Your task to perform on an android device: Go to accessibility settings Image 0: 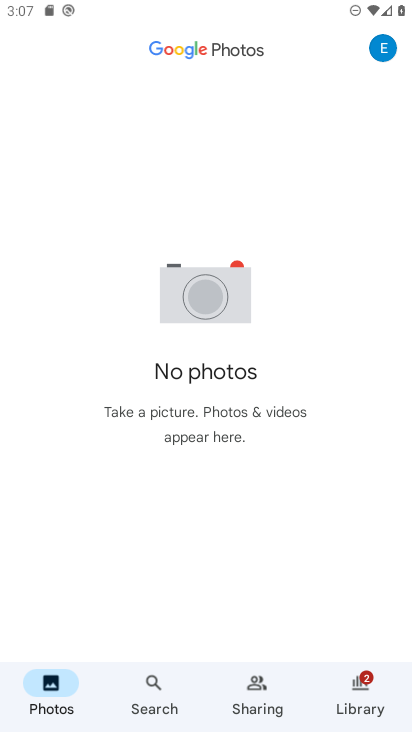
Step 0: press home button
Your task to perform on an android device: Go to accessibility settings Image 1: 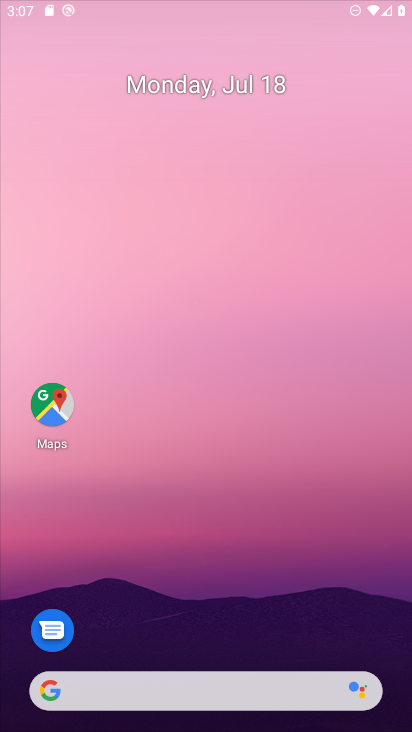
Step 1: drag from (253, 676) to (314, 49)
Your task to perform on an android device: Go to accessibility settings Image 2: 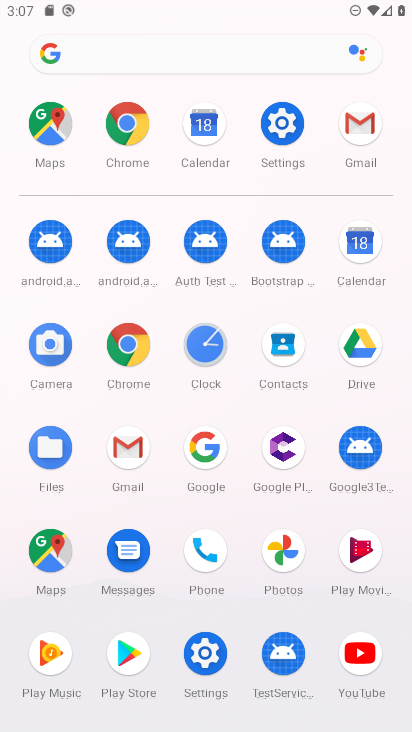
Step 2: click (289, 118)
Your task to perform on an android device: Go to accessibility settings Image 3: 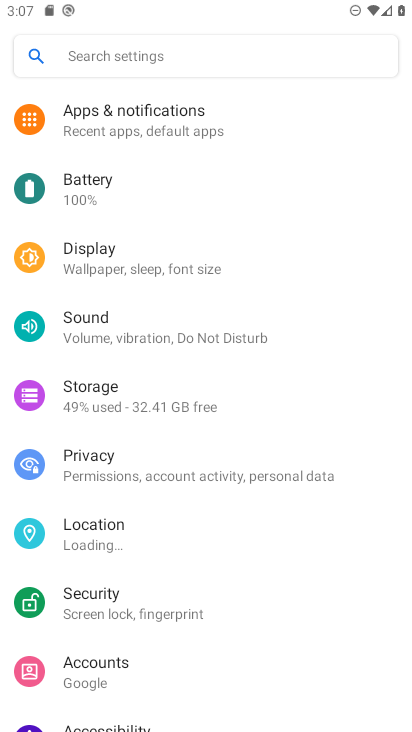
Step 3: drag from (234, 649) to (246, 236)
Your task to perform on an android device: Go to accessibility settings Image 4: 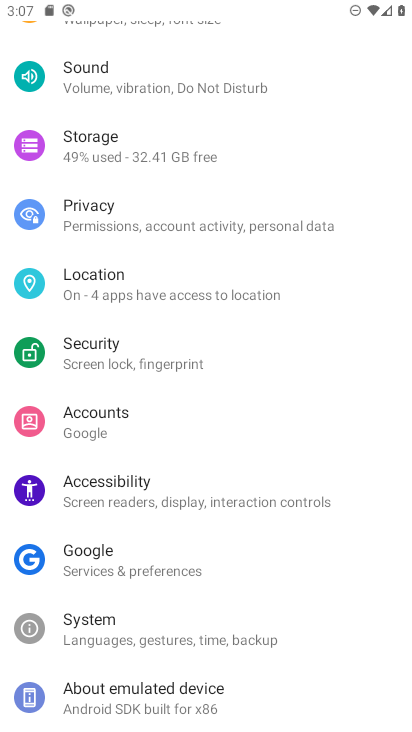
Step 4: click (163, 493)
Your task to perform on an android device: Go to accessibility settings Image 5: 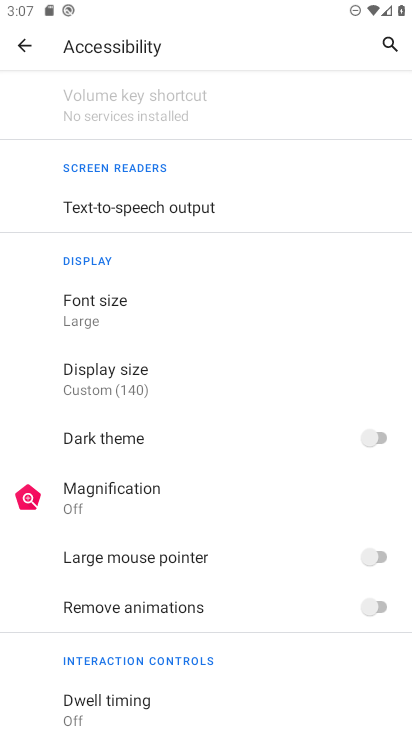
Step 5: task complete